Your task to perform on an android device: Toggle the flashlight Image 0: 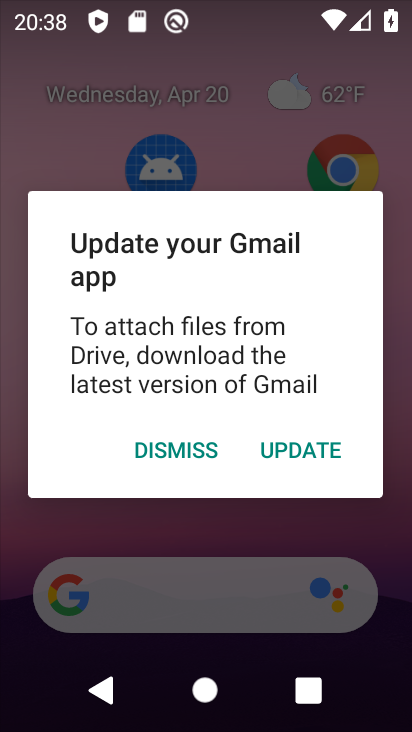
Step 0: press home button
Your task to perform on an android device: Toggle the flashlight Image 1: 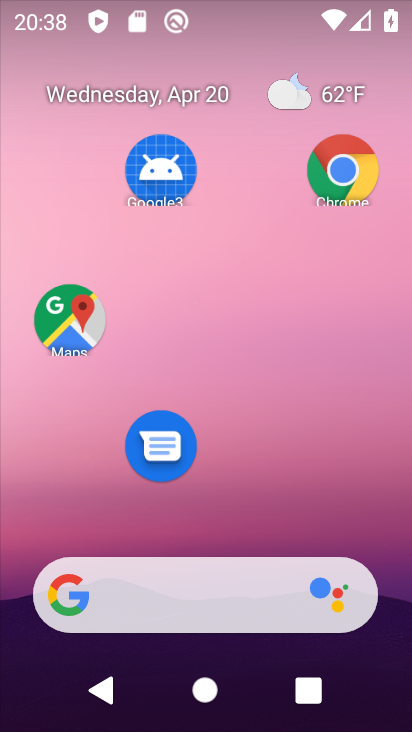
Step 1: drag from (248, 498) to (228, 68)
Your task to perform on an android device: Toggle the flashlight Image 2: 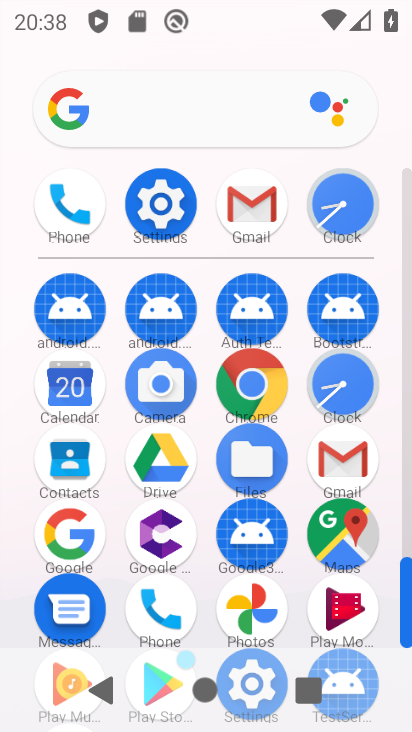
Step 2: click (162, 201)
Your task to perform on an android device: Toggle the flashlight Image 3: 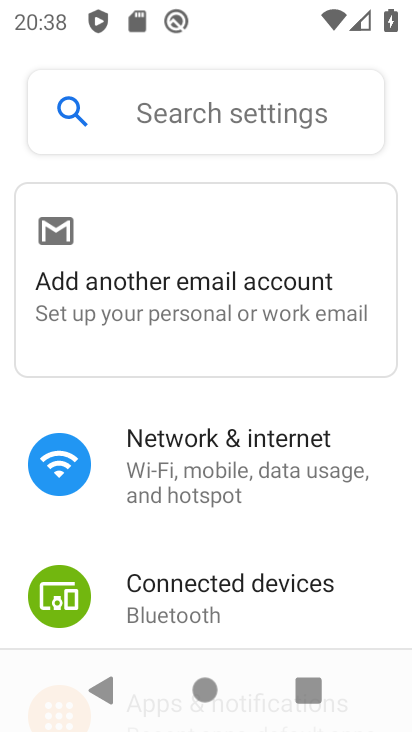
Step 3: drag from (221, 502) to (211, 189)
Your task to perform on an android device: Toggle the flashlight Image 4: 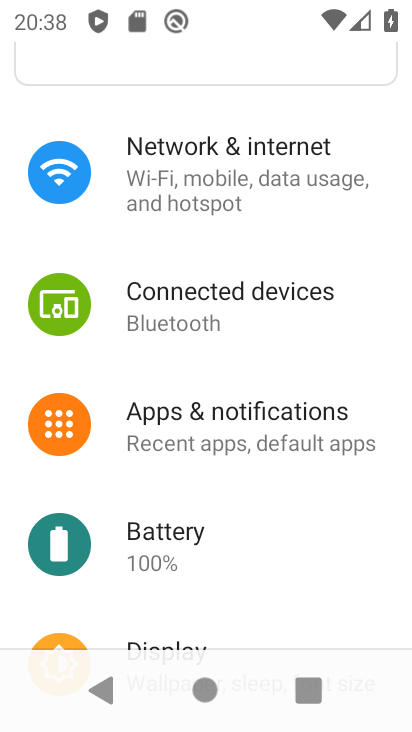
Step 4: click (223, 413)
Your task to perform on an android device: Toggle the flashlight Image 5: 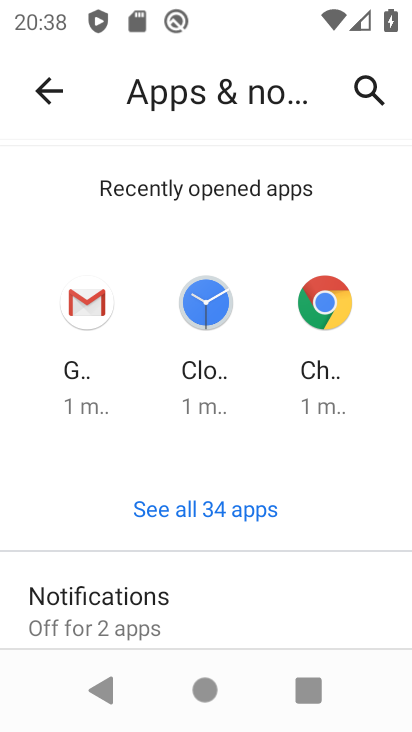
Step 5: task complete